Your task to perform on an android device: search for starred emails in the gmail app Image 0: 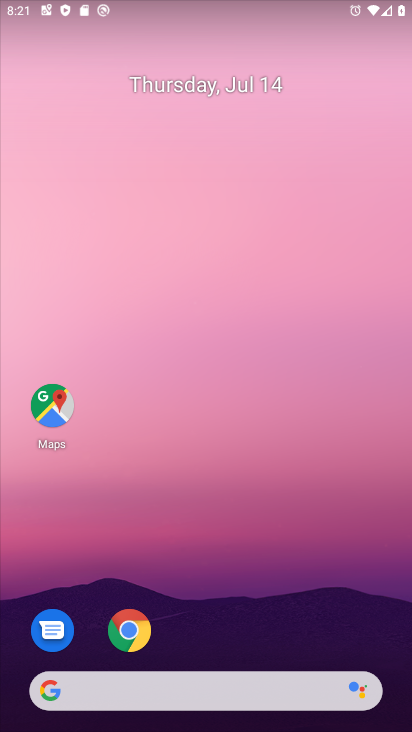
Step 0: drag from (203, 699) to (279, 147)
Your task to perform on an android device: search for starred emails in the gmail app Image 1: 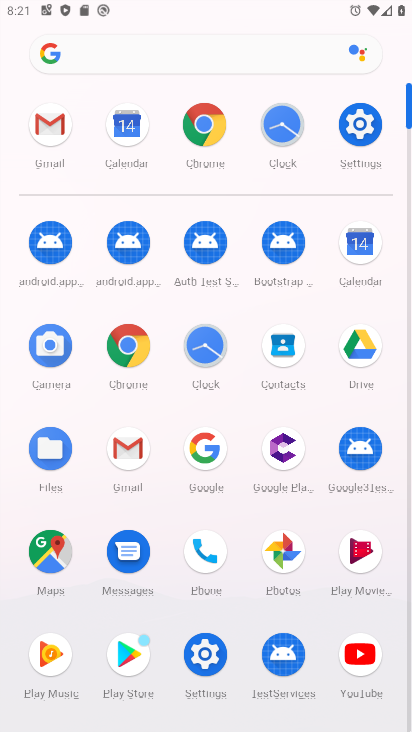
Step 1: click (137, 446)
Your task to perform on an android device: search for starred emails in the gmail app Image 2: 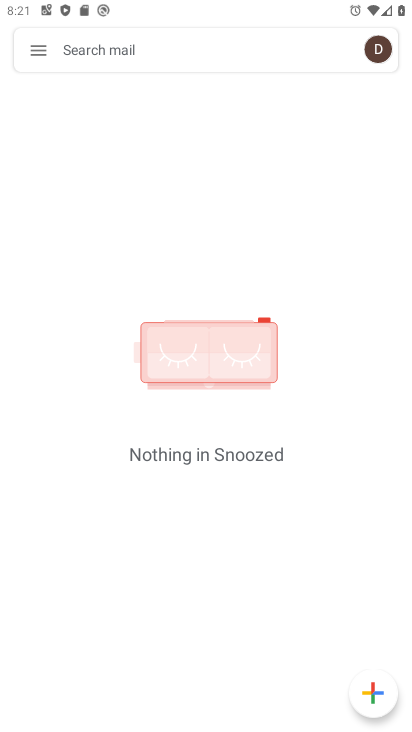
Step 2: click (34, 57)
Your task to perform on an android device: search for starred emails in the gmail app Image 3: 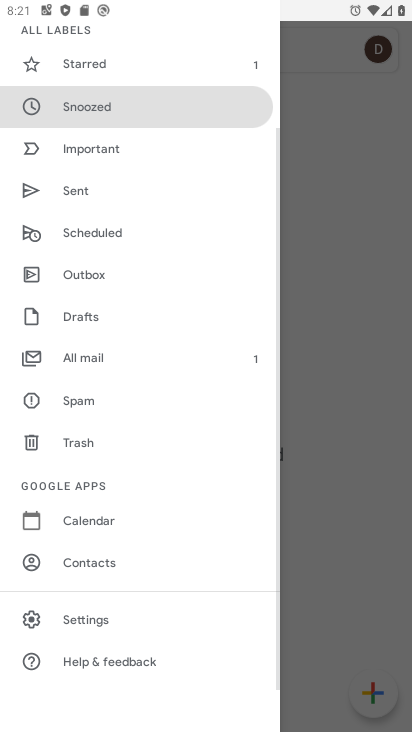
Step 3: click (79, 65)
Your task to perform on an android device: search for starred emails in the gmail app Image 4: 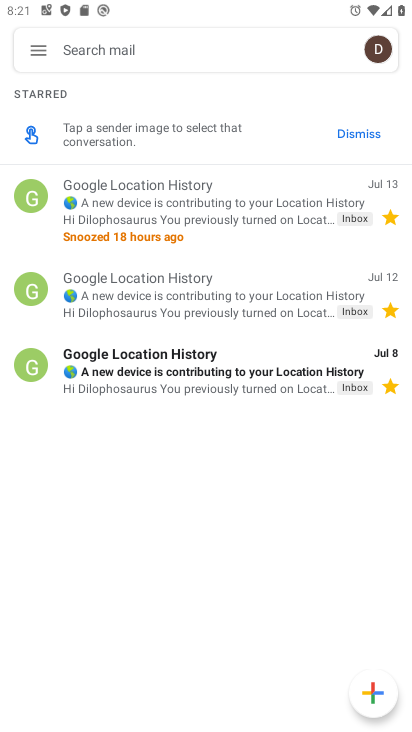
Step 4: task complete